Your task to perform on an android device: Open Chrome and go to settings Image 0: 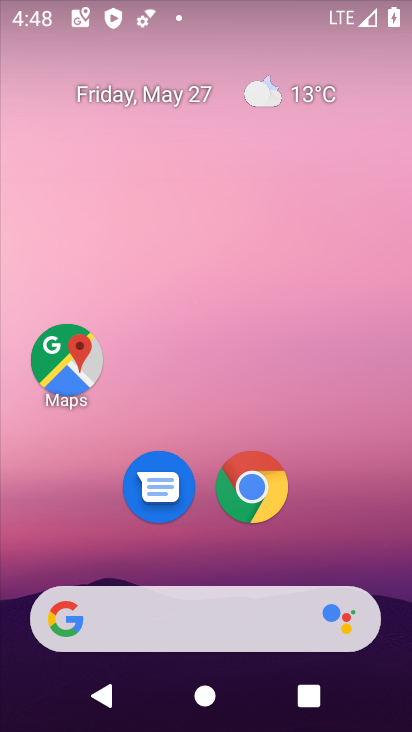
Step 0: click (377, 516)
Your task to perform on an android device: Open Chrome and go to settings Image 1: 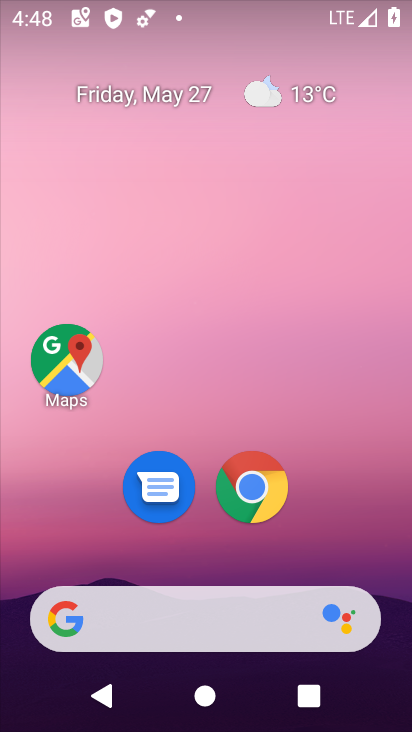
Step 1: click (253, 481)
Your task to perform on an android device: Open Chrome and go to settings Image 2: 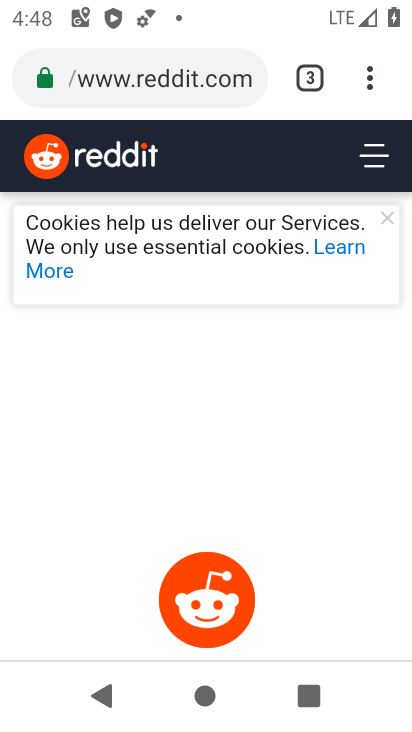
Step 2: task complete